Your task to perform on an android device: Open wifi settings Image 0: 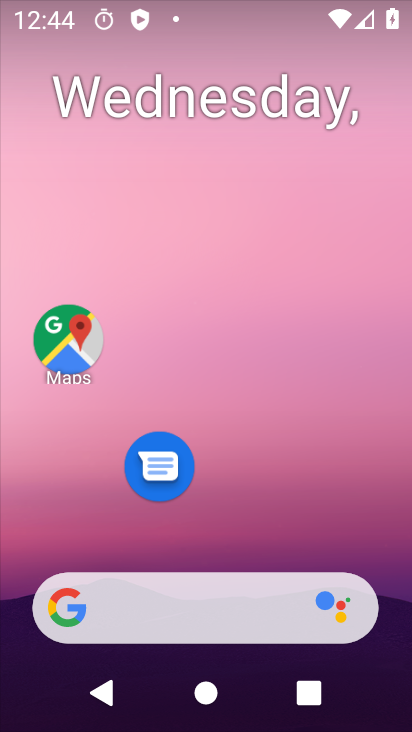
Step 0: drag from (327, 517) to (326, 251)
Your task to perform on an android device: Open wifi settings Image 1: 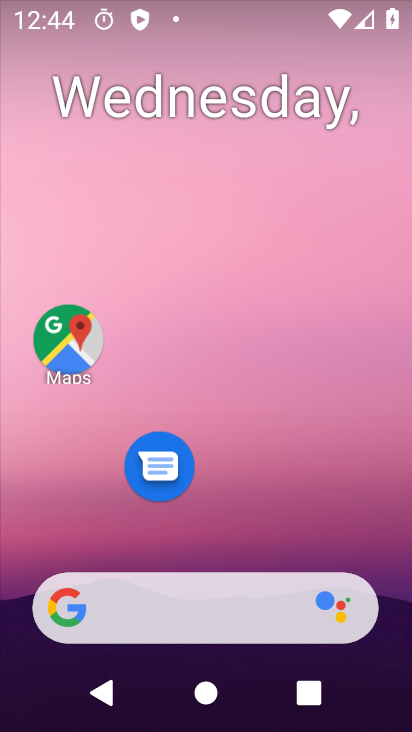
Step 1: drag from (349, 530) to (292, 96)
Your task to perform on an android device: Open wifi settings Image 2: 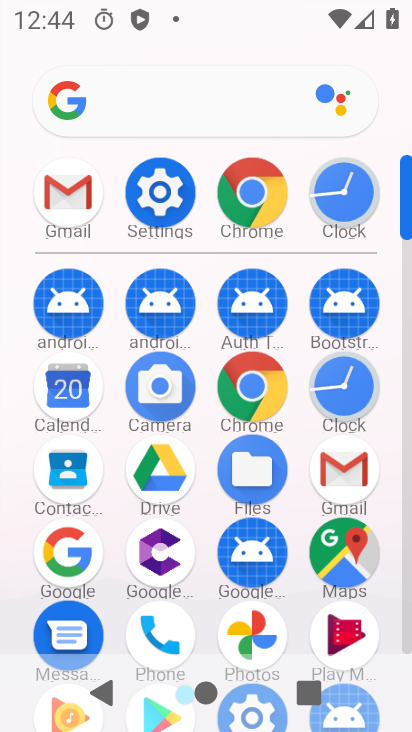
Step 2: click (186, 213)
Your task to perform on an android device: Open wifi settings Image 3: 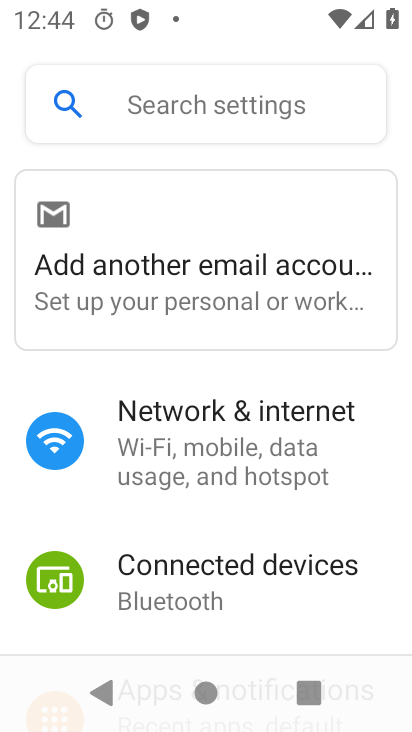
Step 3: click (236, 449)
Your task to perform on an android device: Open wifi settings Image 4: 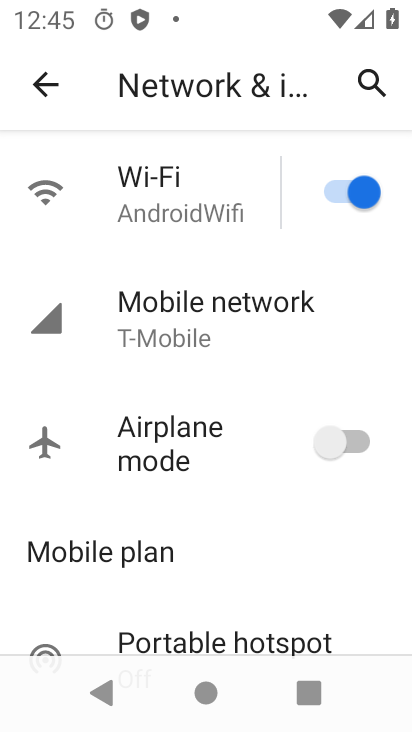
Step 4: click (226, 168)
Your task to perform on an android device: Open wifi settings Image 5: 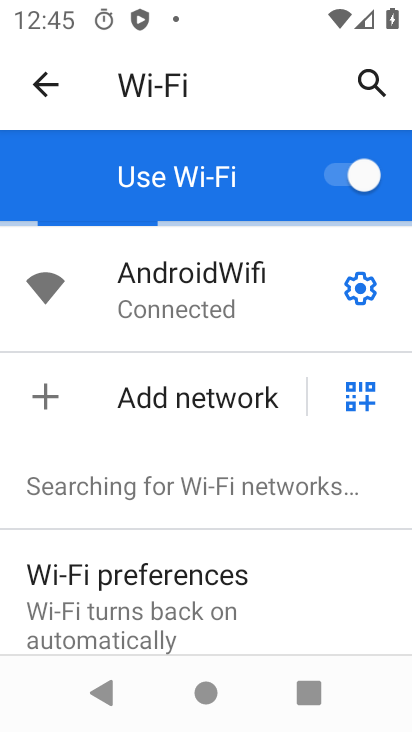
Step 5: click (128, 282)
Your task to perform on an android device: Open wifi settings Image 6: 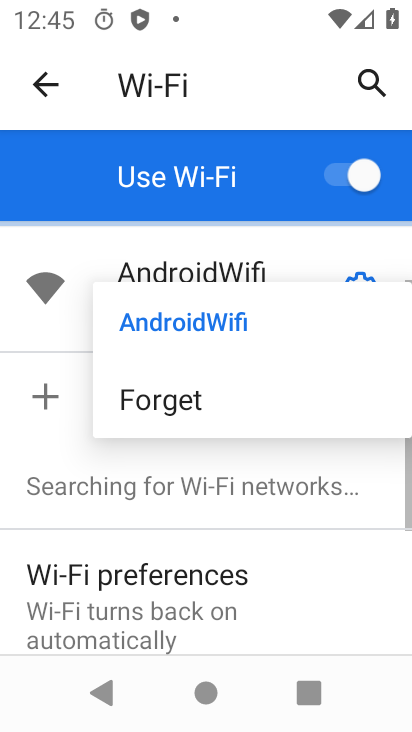
Step 6: click (230, 322)
Your task to perform on an android device: Open wifi settings Image 7: 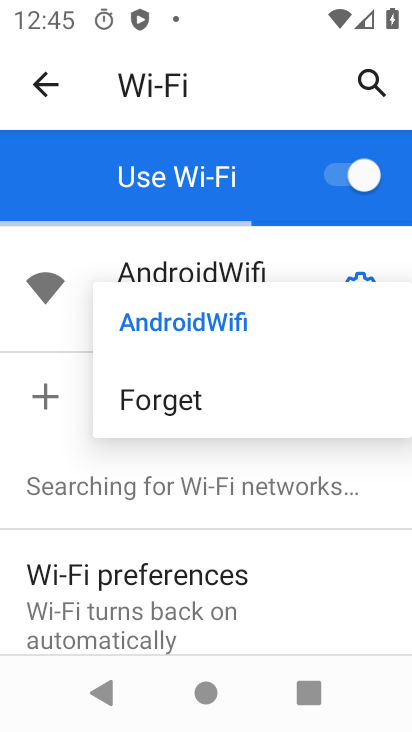
Step 7: click (348, 269)
Your task to perform on an android device: Open wifi settings Image 8: 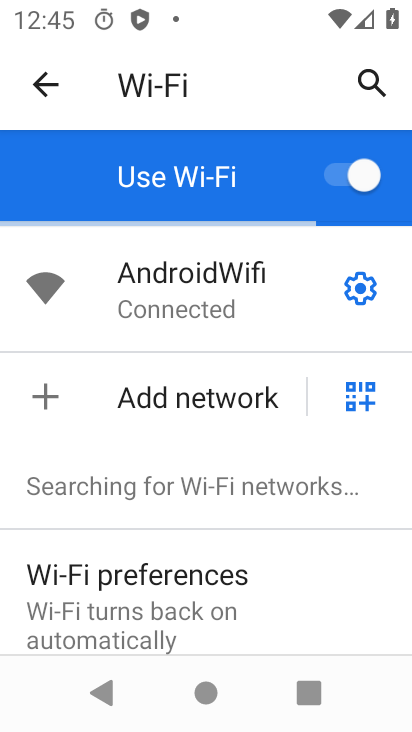
Step 8: click (359, 295)
Your task to perform on an android device: Open wifi settings Image 9: 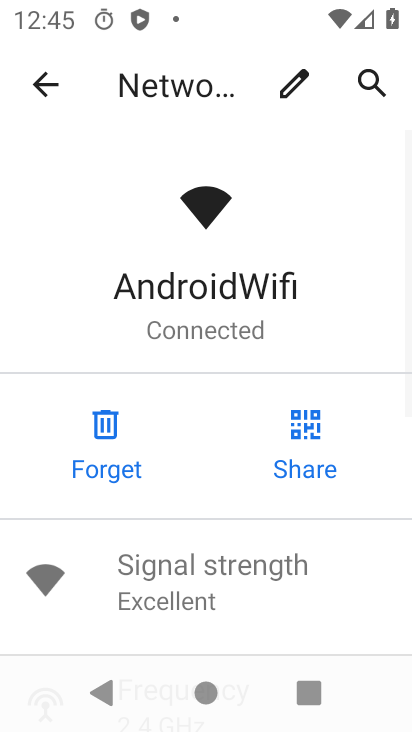
Step 9: task complete